Your task to perform on an android device: Open sound settings Image 0: 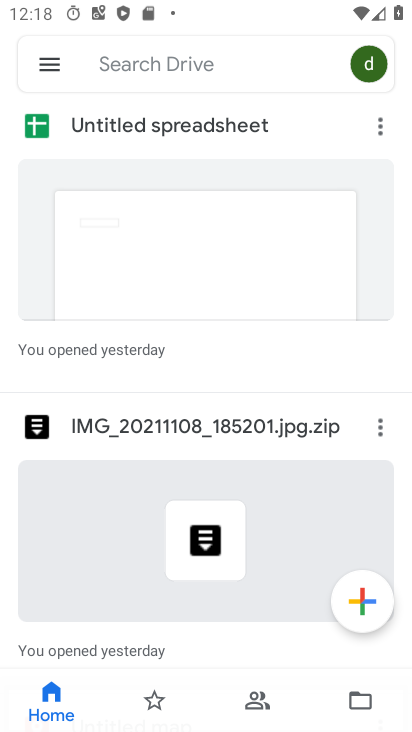
Step 0: press home button
Your task to perform on an android device: Open sound settings Image 1: 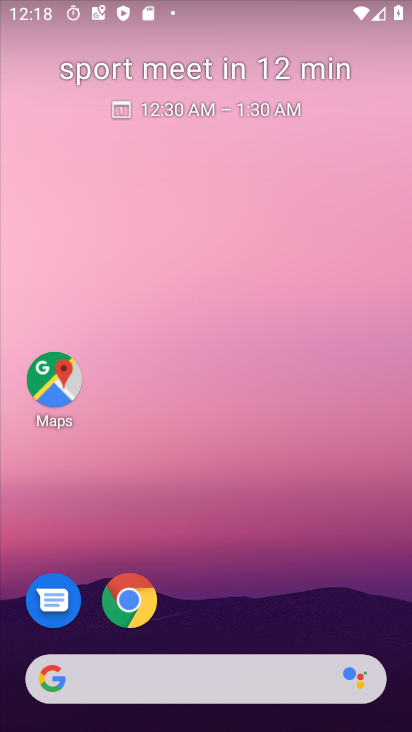
Step 1: drag from (207, 591) to (300, 18)
Your task to perform on an android device: Open sound settings Image 2: 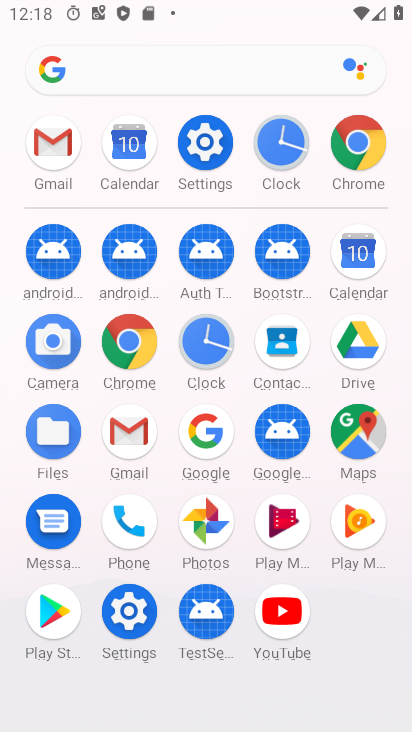
Step 2: click (201, 140)
Your task to perform on an android device: Open sound settings Image 3: 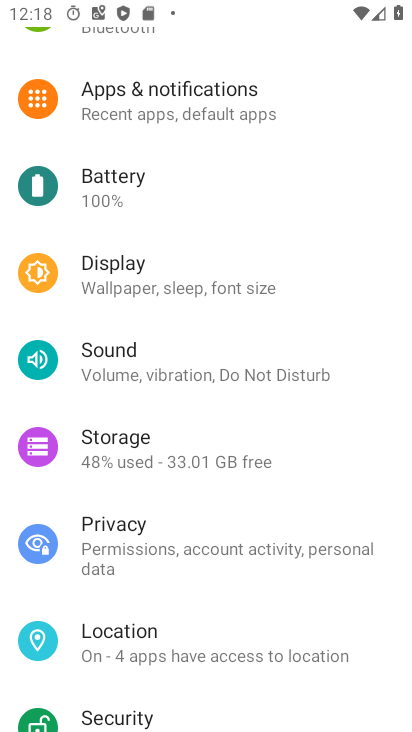
Step 3: click (139, 369)
Your task to perform on an android device: Open sound settings Image 4: 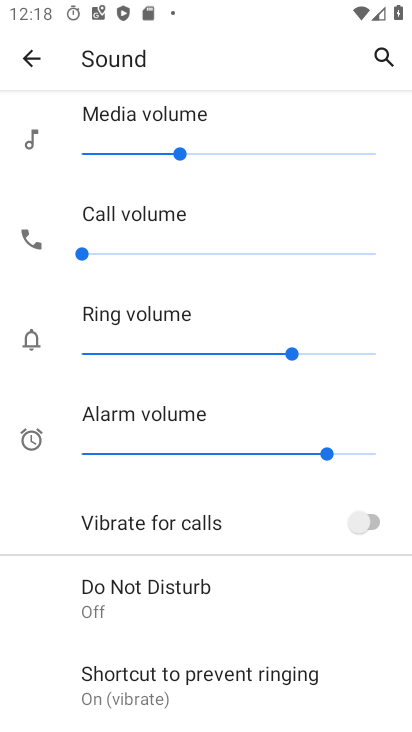
Step 4: task complete